Your task to perform on an android device: Search for the best burger restaurants on Maps Image 0: 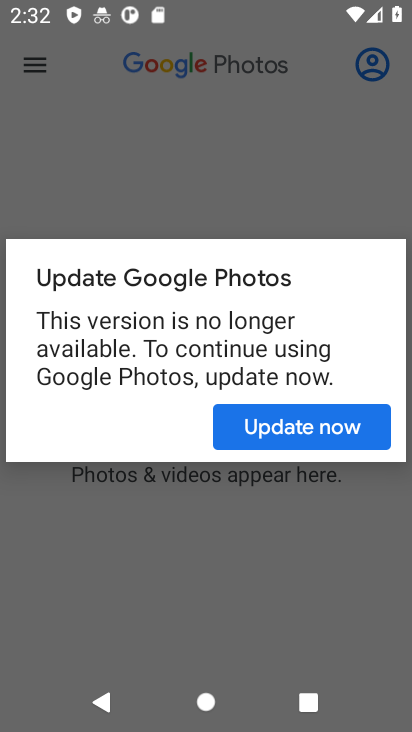
Step 0: press home button
Your task to perform on an android device: Search for the best burger restaurants on Maps Image 1: 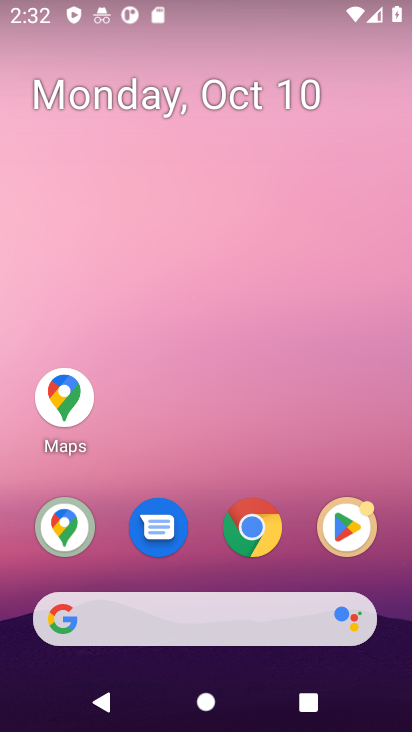
Step 1: click (60, 403)
Your task to perform on an android device: Search for the best burger restaurants on Maps Image 2: 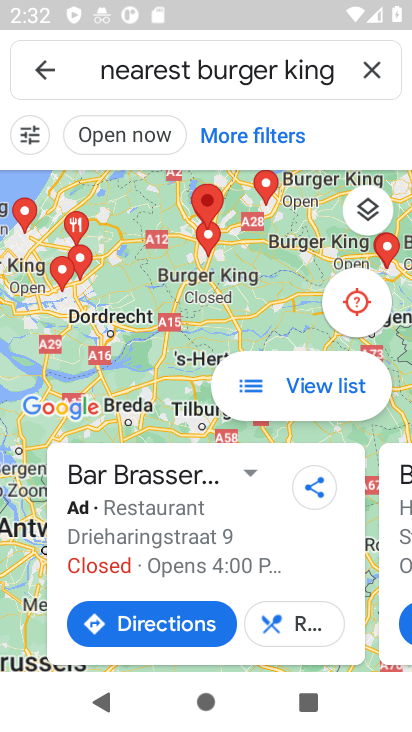
Step 2: click (370, 69)
Your task to perform on an android device: Search for the best burger restaurants on Maps Image 3: 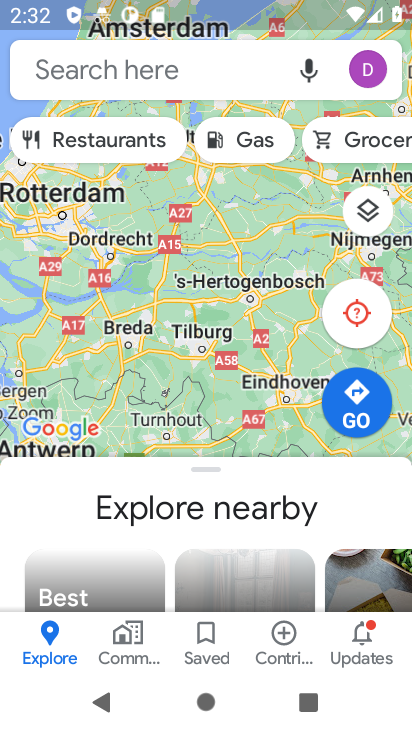
Step 3: click (212, 69)
Your task to perform on an android device: Search for the best burger restaurants on Maps Image 4: 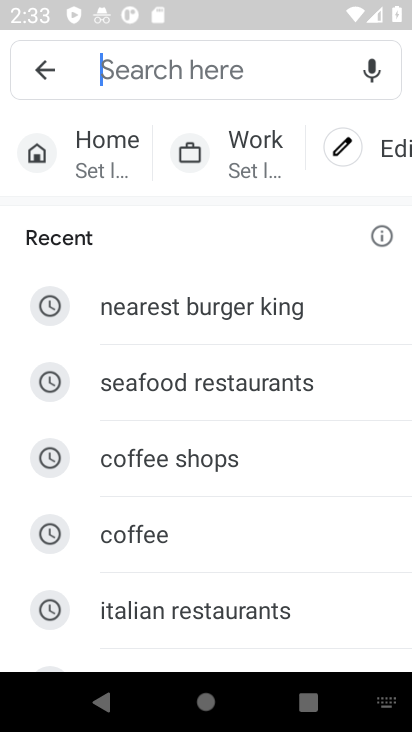
Step 4: type "best burger restaurants"
Your task to perform on an android device: Search for the best burger restaurants on Maps Image 5: 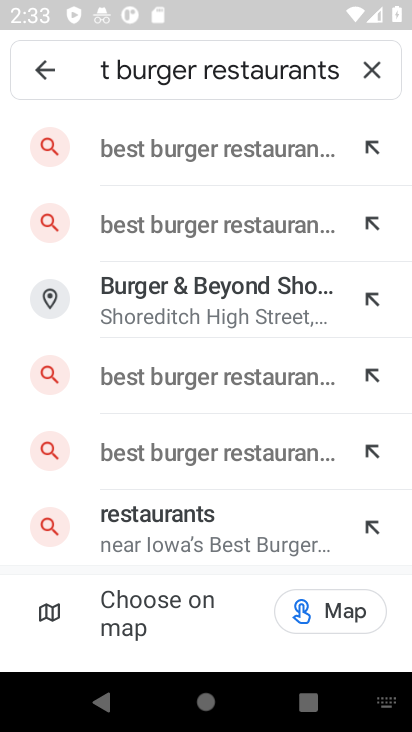
Step 5: click (183, 152)
Your task to perform on an android device: Search for the best burger restaurants on Maps Image 6: 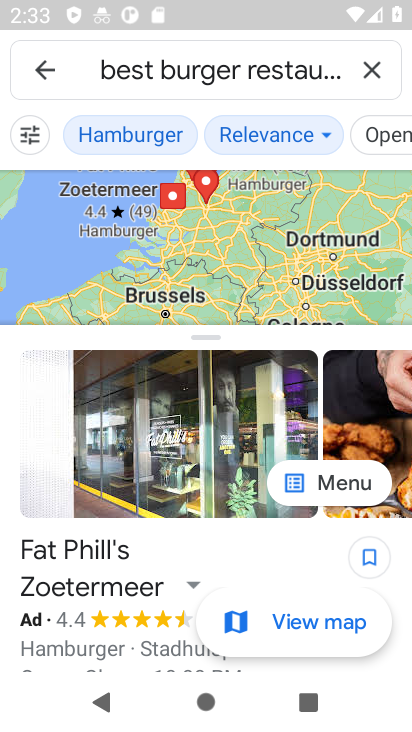
Step 6: task complete